Your task to perform on an android device: turn off javascript in the chrome app Image 0: 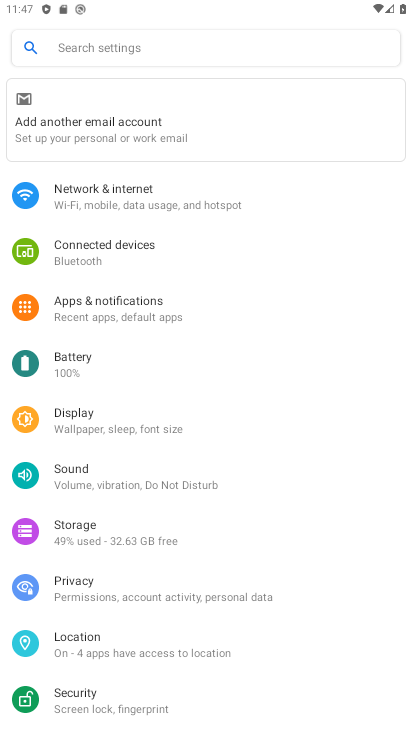
Step 0: press home button
Your task to perform on an android device: turn off javascript in the chrome app Image 1: 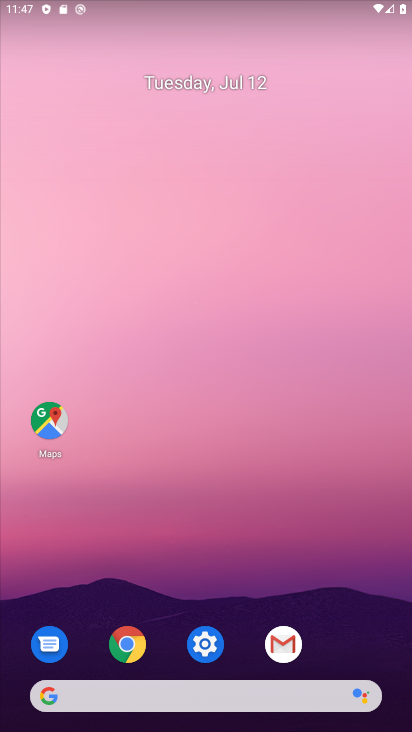
Step 1: click (147, 640)
Your task to perform on an android device: turn off javascript in the chrome app Image 2: 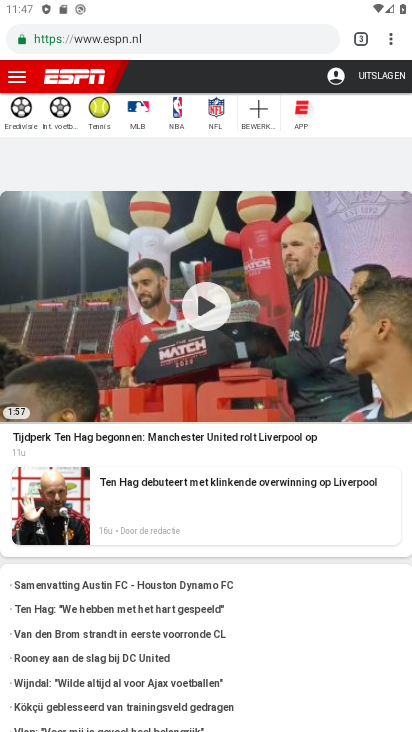
Step 2: click (395, 43)
Your task to perform on an android device: turn off javascript in the chrome app Image 3: 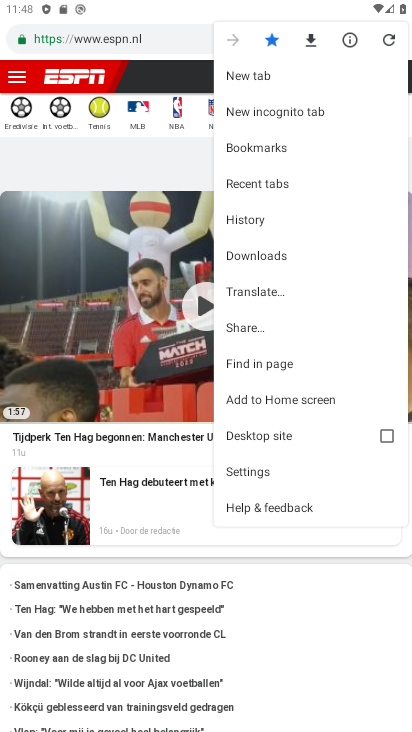
Step 3: click (251, 468)
Your task to perform on an android device: turn off javascript in the chrome app Image 4: 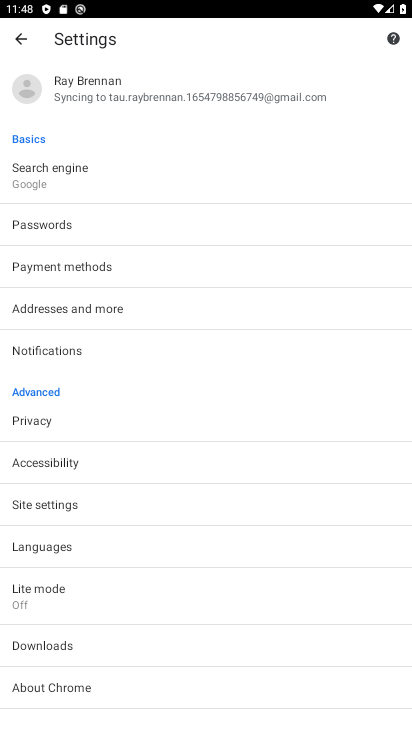
Step 4: click (50, 514)
Your task to perform on an android device: turn off javascript in the chrome app Image 5: 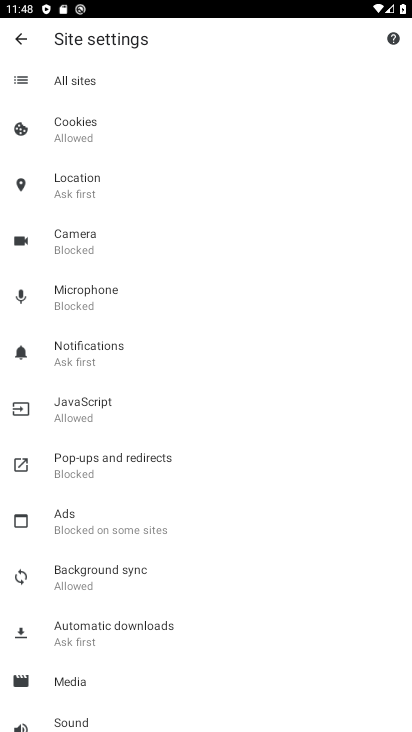
Step 5: click (78, 411)
Your task to perform on an android device: turn off javascript in the chrome app Image 6: 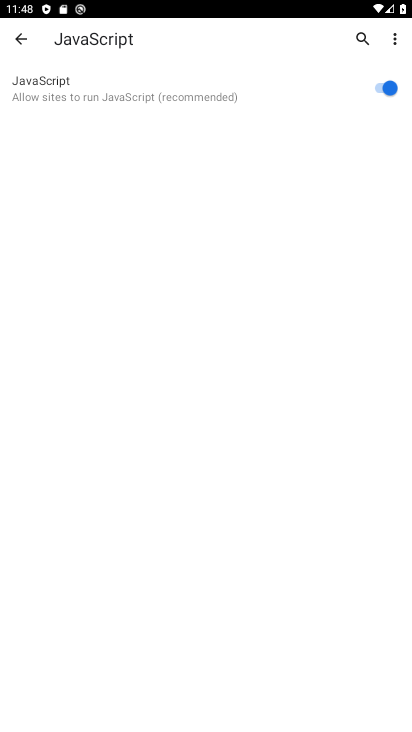
Step 6: click (377, 84)
Your task to perform on an android device: turn off javascript in the chrome app Image 7: 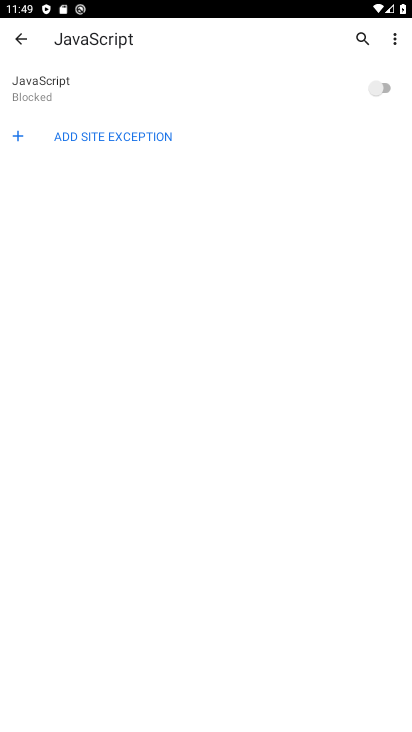
Step 7: task complete